Your task to perform on an android device: turn off location Image 0: 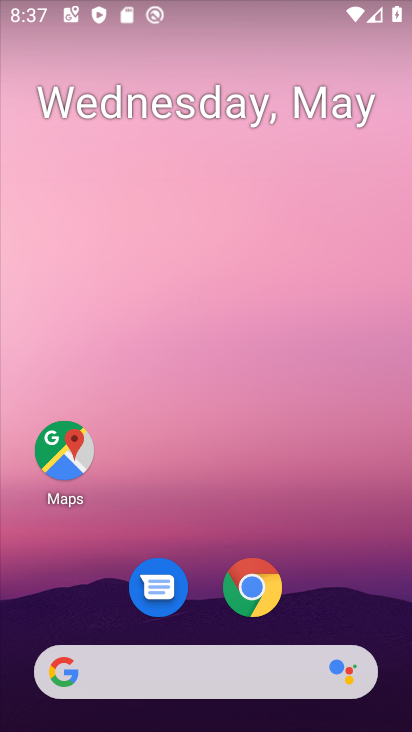
Step 0: drag from (370, 609) to (324, 87)
Your task to perform on an android device: turn off location Image 1: 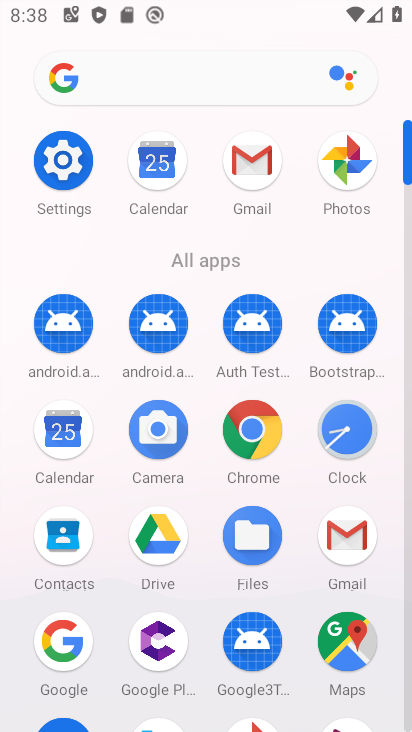
Step 1: click (408, 699)
Your task to perform on an android device: turn off location Image 2: 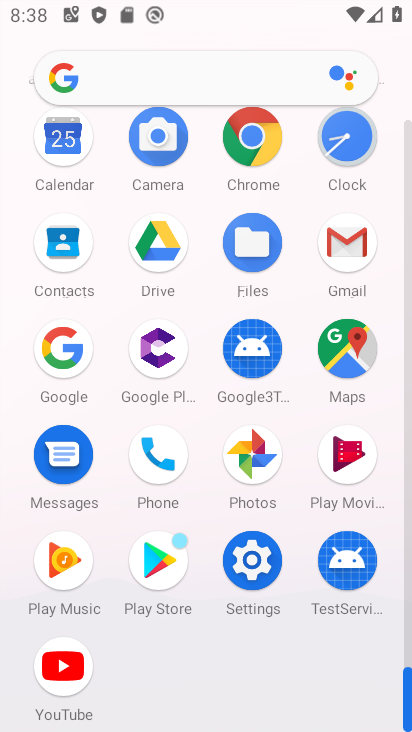
Step 2: click (250, 562)
Your task to perform on an android device: turn off location Image 3: 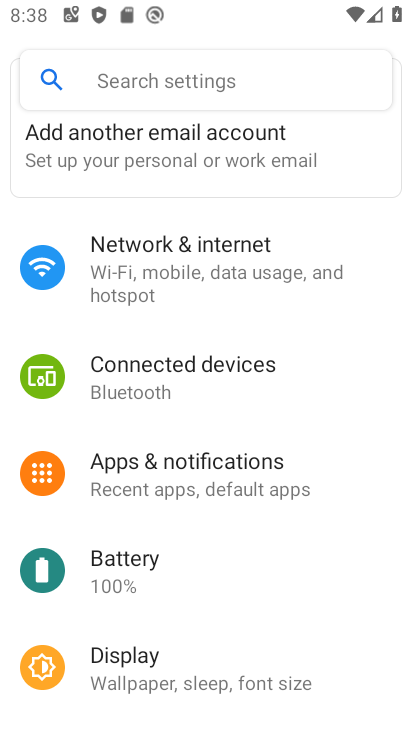
Step 3: drag from (340, 650) to (286, 161)
Your task to perform on an android device: turn off location Image 4: 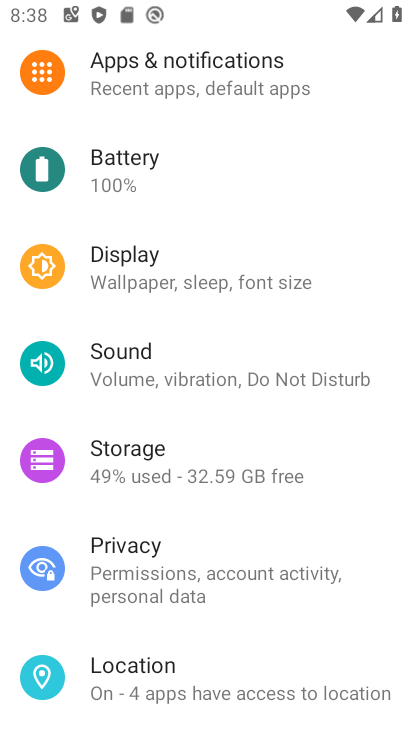
Step 4: click (156, 687)
Your task to perform on an android device: turn off location Image 5: 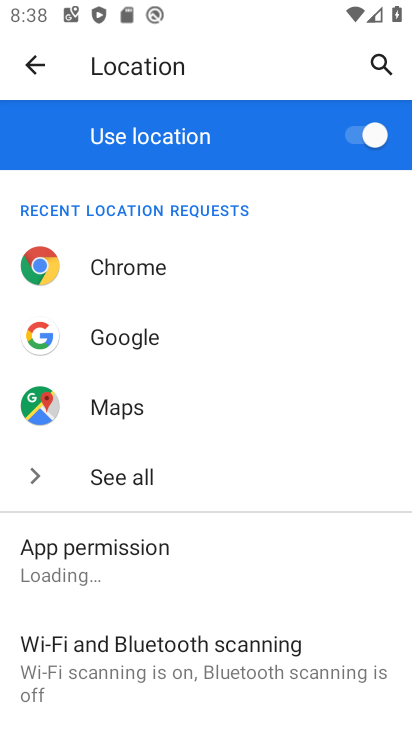
Step 5: click (343, 135)
Your task to perform on an android device: turn off location Image 6: 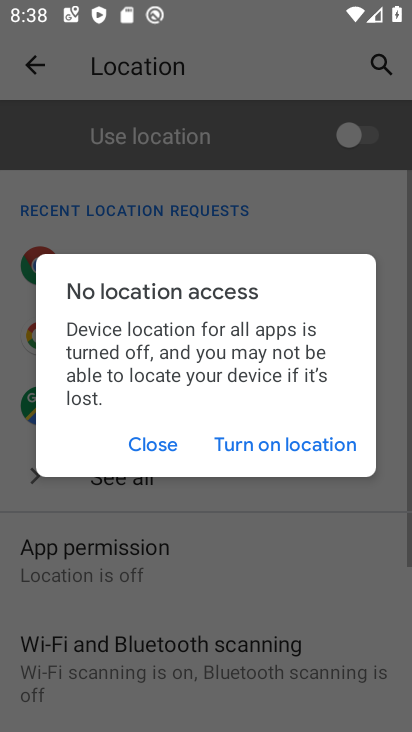
Step 6: task complete